Your task to perform on an android device: change the upload size in google photos Image 0: 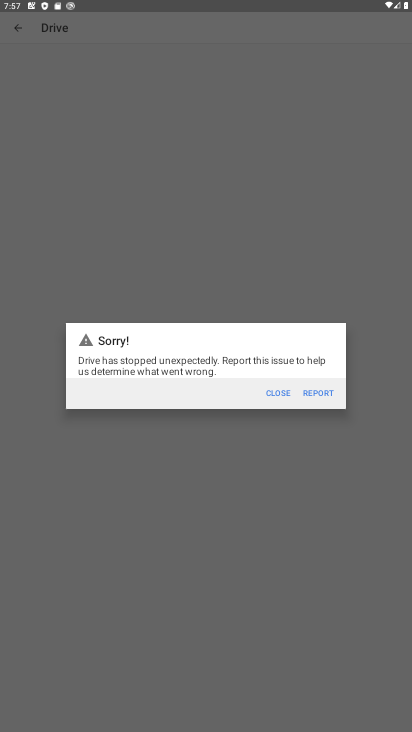
Step 0: press home button
Your task to perform on an android device: change the upload size in google photos Image 1: 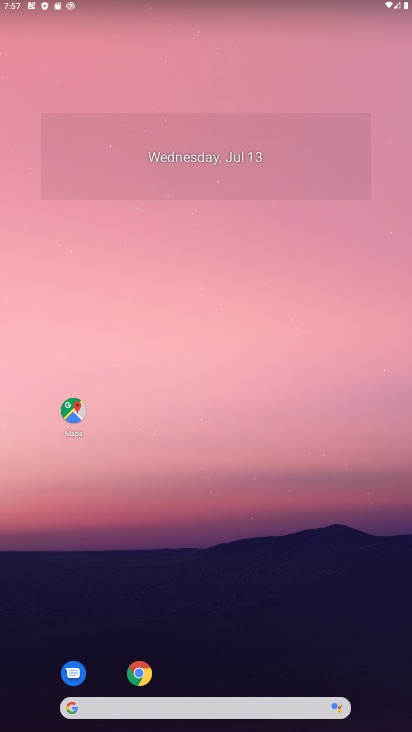
Step 1: drag from (288, 690) to (254, 20)
Your task to perform on an android device: change the upload size in google photos Image 2: 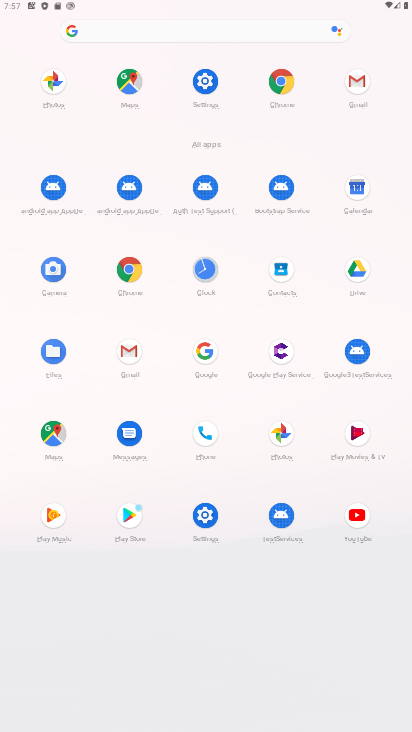
Step 2: click (54, 89)
Your task to perform on an android device: change the upload size in google photos Image 3: 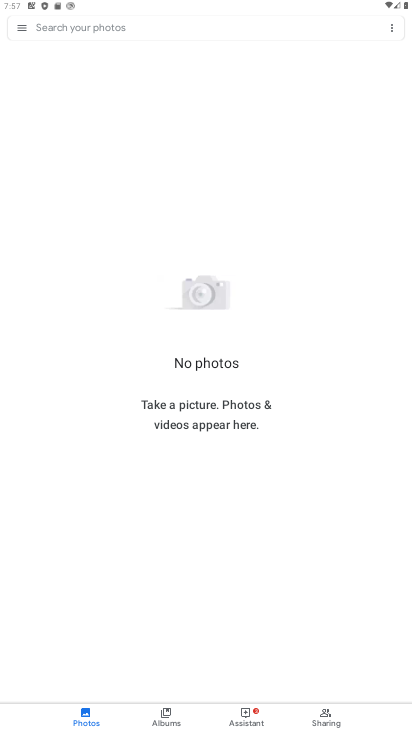
Step 3: click (24, 29)
Your task to perform on an android device: change the upload size in google photos Image 4: 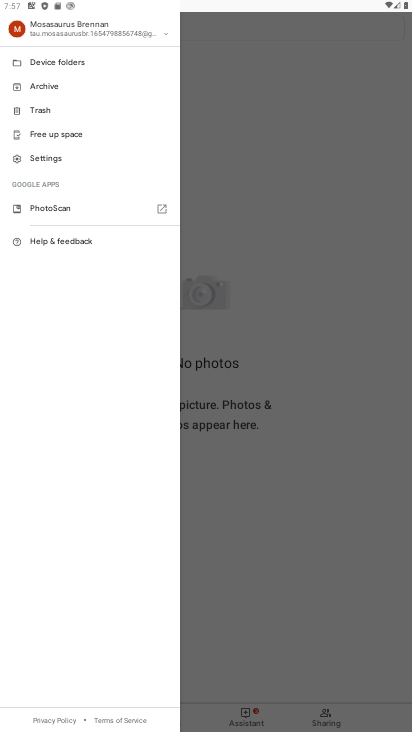
Step 4: click (43, 163)
Your task to perform on an android device: change the upload size in google photos Image 5: 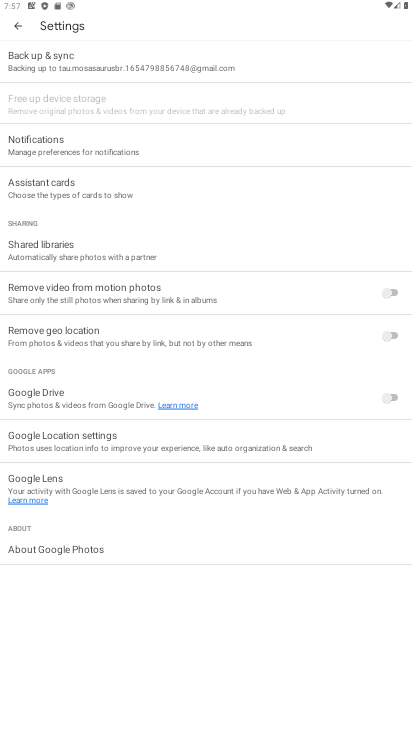
Step 5: click (146, 73)
Your task to perform on an android device: change the upload size in google photos Image 6: 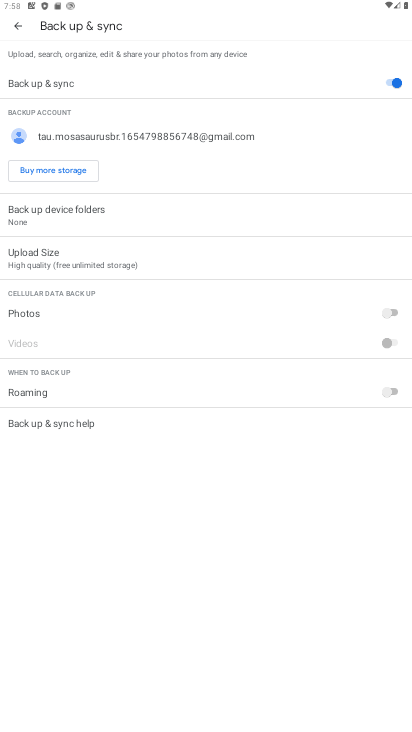
Step 6: click (90, 267)
Your task to perform on an android device: change the upload size in google photos Image 7: 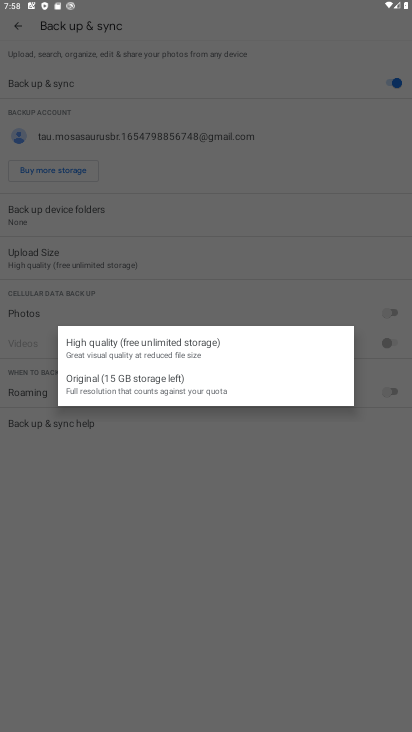
Step 7: click (128, 346)
Your task to perform on an android device: change the upload size in google photos Image 8: 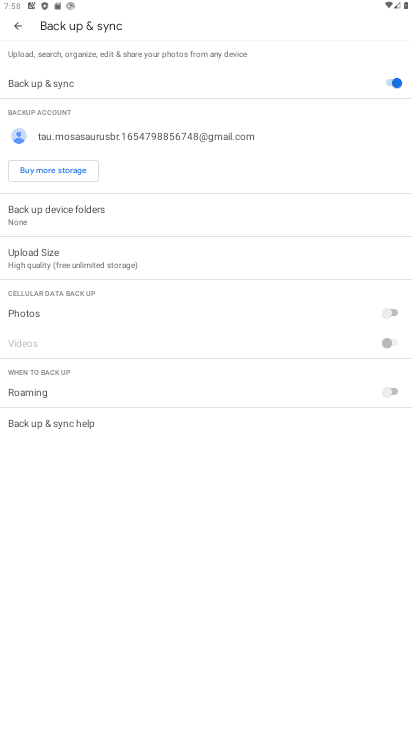
Step 8: click (44, 260)
Your task to perform on an android device: change the upload size in google photos Image 9: 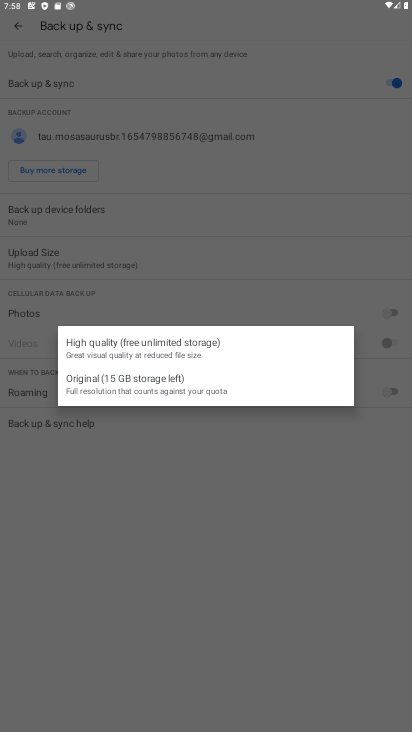
Step 9: click (153, 392)
Your task to perform on an android device: change the upload size in google photos Image 10: 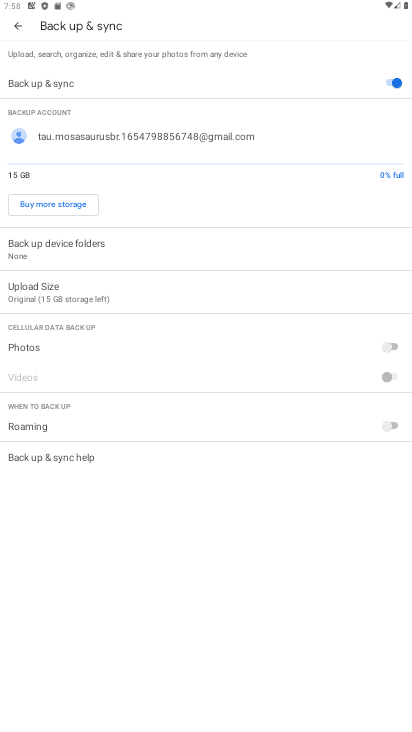
Step 10: task complete